Your task to perform on an android device: Open internet settings Image 0: 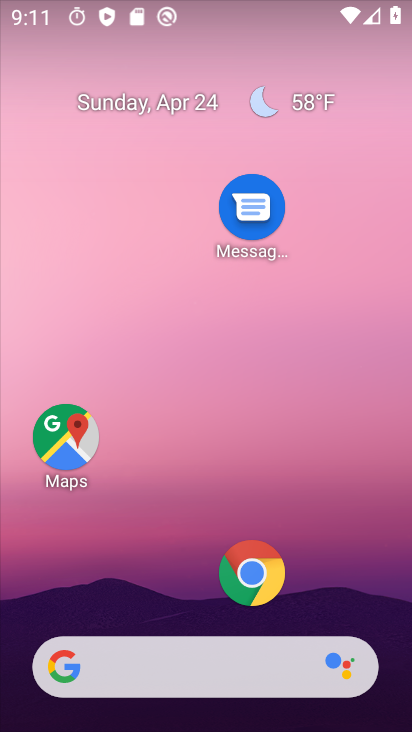
Step 0: drag from (168, 608) to (233, 58)
Your task to perform on an android device: Open internet settings Image 1: 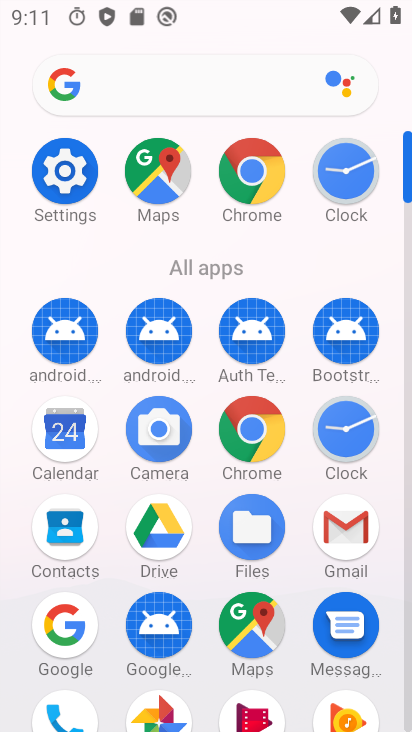
Step 1: click (61, 172)
Your task to perform on an android device: Open internet settings Image 2: 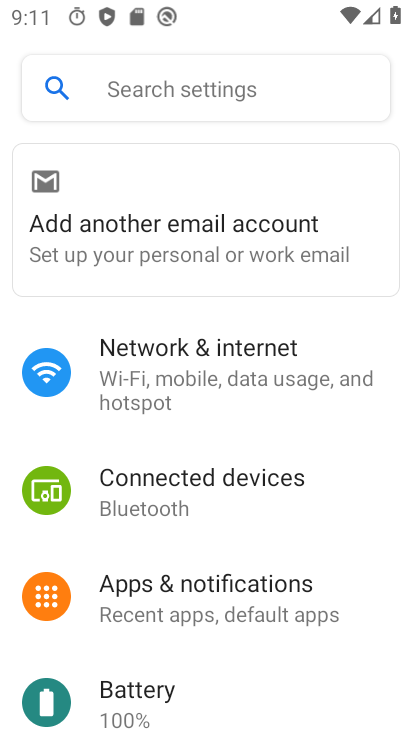
Step 2: click (168, 380)
Your task to perform on an android device: Open internet settings Image 3: 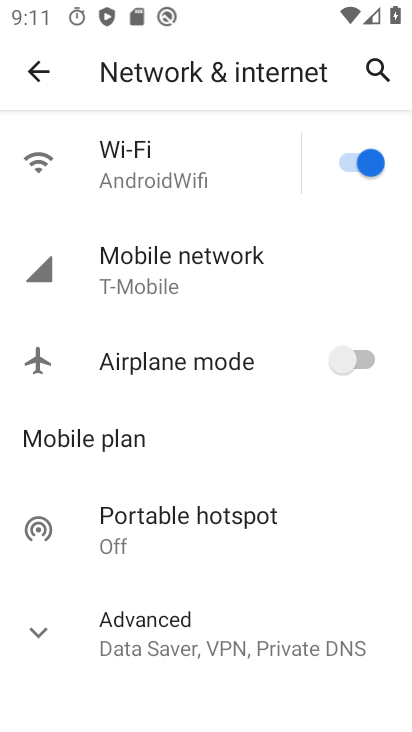
Step 3: task complete